Your task to perform on an android device: change alarm snooze length Image 0: 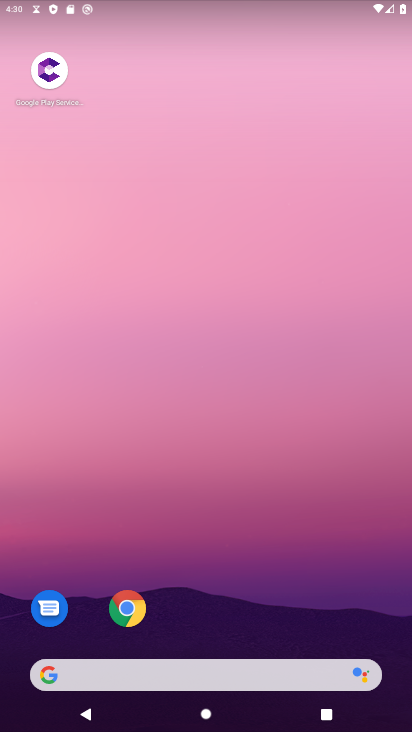
Step 0: drag from (238, 621) to (211, 182)
Your task to perform on an android device: change alarm snooze length Image 1: 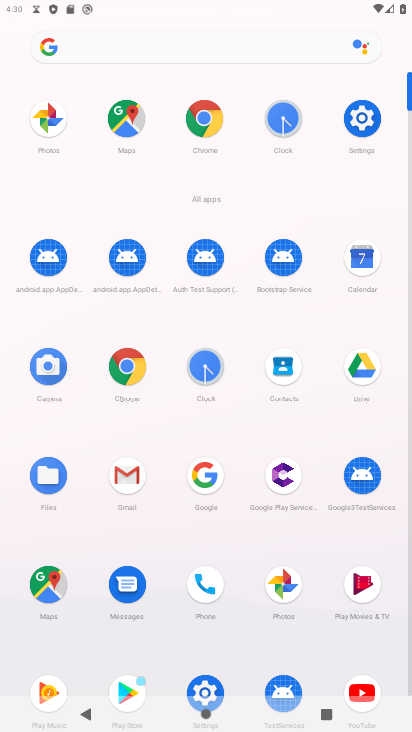
Step 1: click (287, 112)
Your task to perform on an android device: change alarm snooze length Image 2: 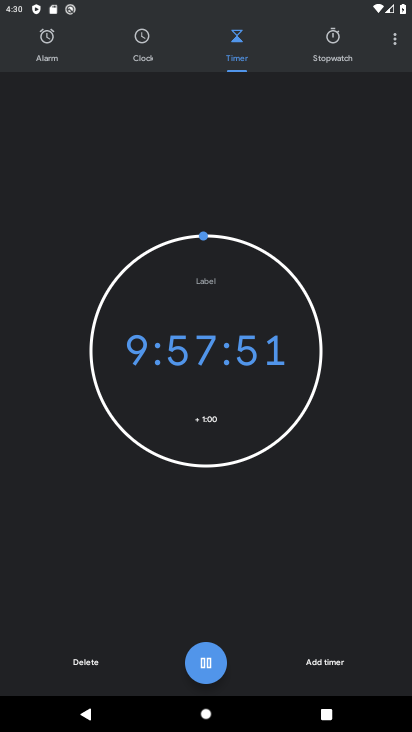
Step 2: click (390, 42)
Your task to perform on an android device: change alarm snooze length Image 3: 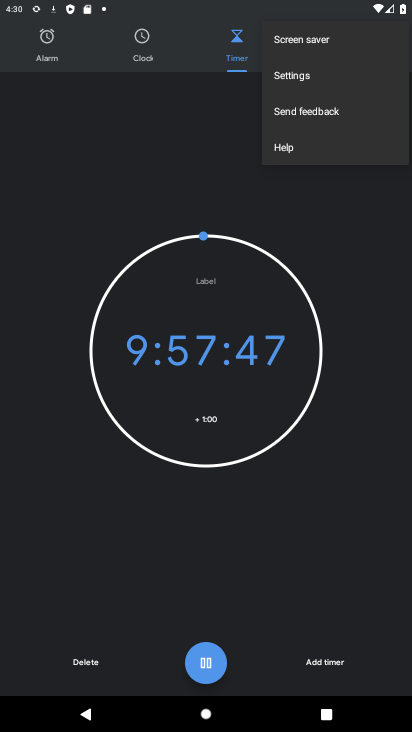
Step 3: click (308, 82)
Your task to perform on an android device: change alarm snooze length Image 4: 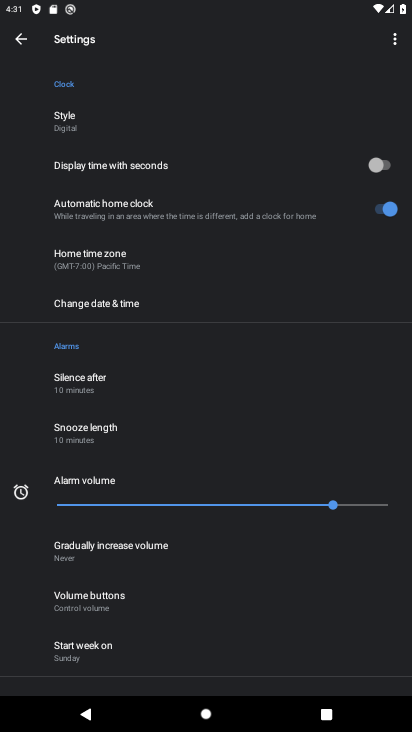
Step 4: drag from (245, 562) to (215, 361)
Your task to perform on an android device: change alarm snooze length Image 5: 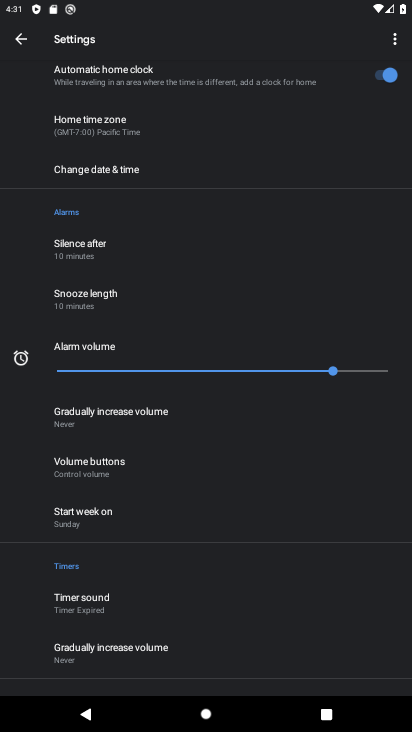
Step 5: drag from (195, 576) to (158, 253)
Your task to perform on an android device: change alarm snooze length Image 6: 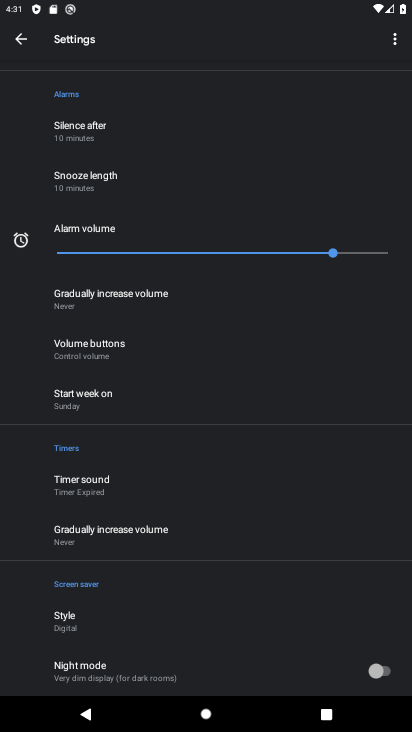
Step 6: click (162, 178)
Your task to perform on an android device: change alarm snooze length Image 7: 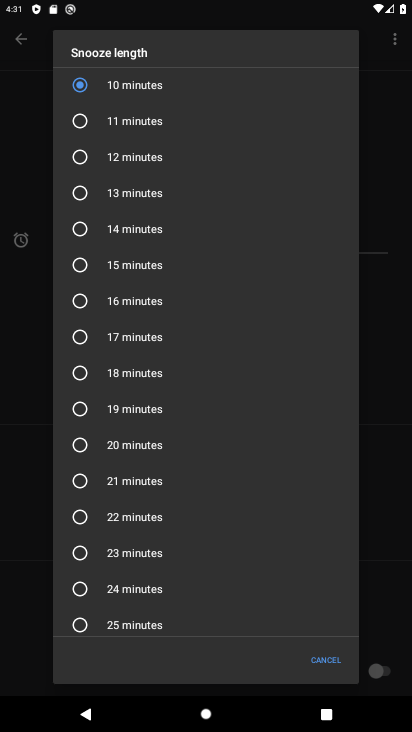
Step 7: click (157, 370)
Your task to perform on an android device: change alarm snooze length Image 8: 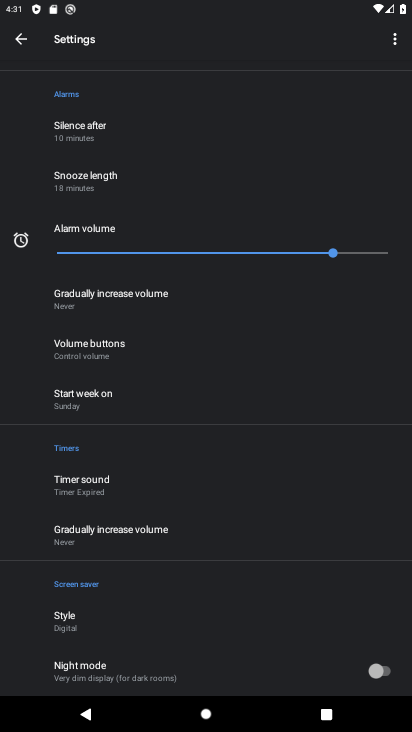
Step 8: task complete